Your task to perform on an android device: Open battery settings Image 0: 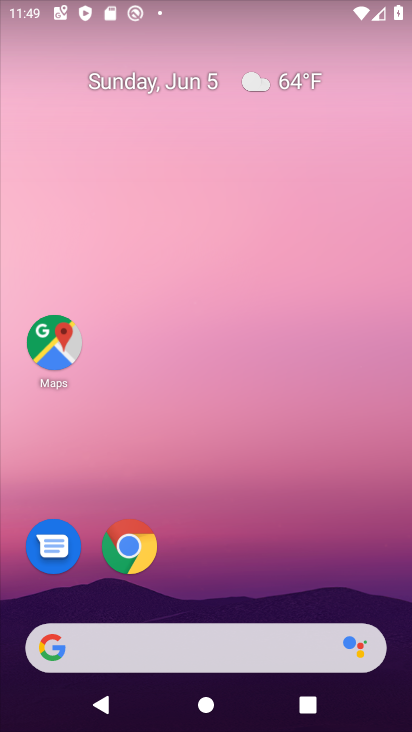
Step 0: drag from (237, 585) to (244, 216)
Your task to perform on an android device: Open battery settings Image 1: 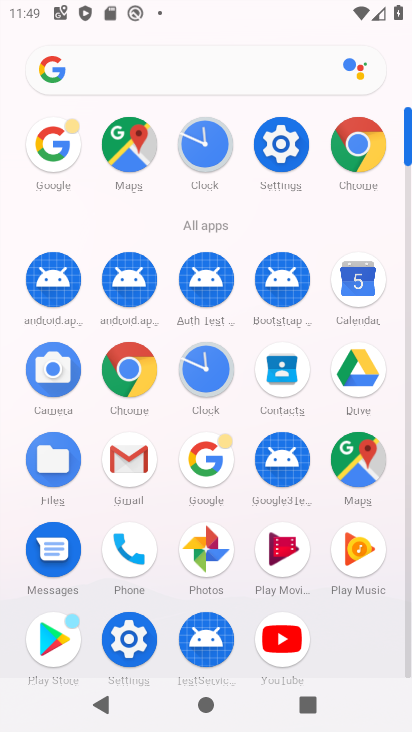
Step 1: click (272, 131)
Your task to perform on an android device: Open battery settings Image 2: 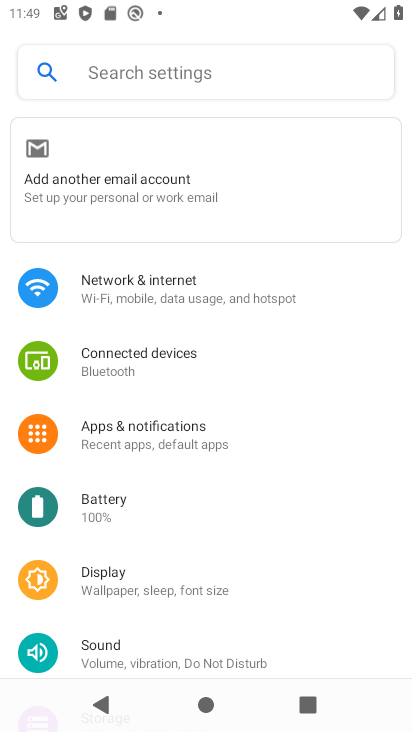
Step 2: click (129, 371)
Your task to perform on an android device: Open battery settings Image 3: 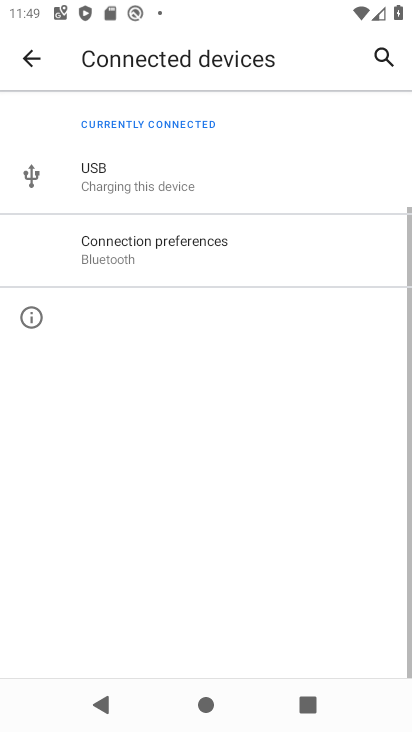
Step 3: click (43, 57)
Your task to perform on an android device: Open battery settings Image 4: 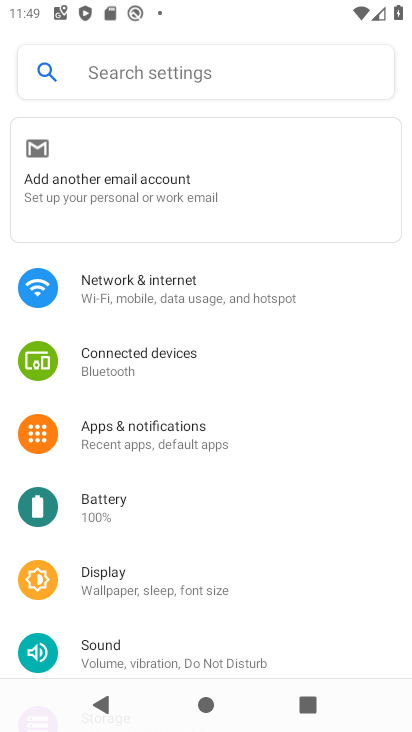
Step 4: drag from (114, 375) to (143, 263)
Your task to perform on an android device: Open battery settings Image 5: 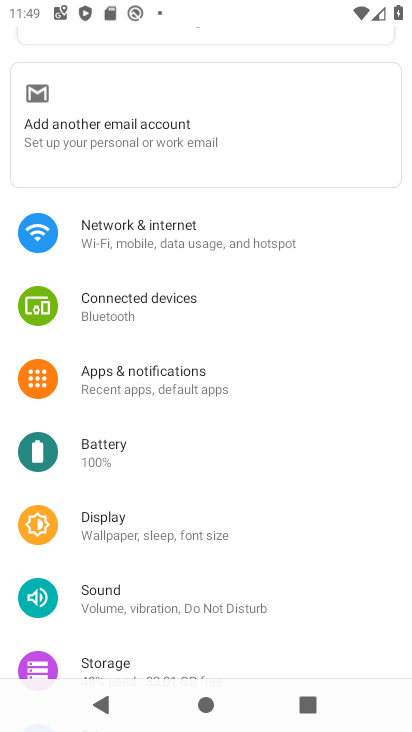
Step 5: click (73, 446)
Your task to perform on an android device: Open battery settings Image 6: 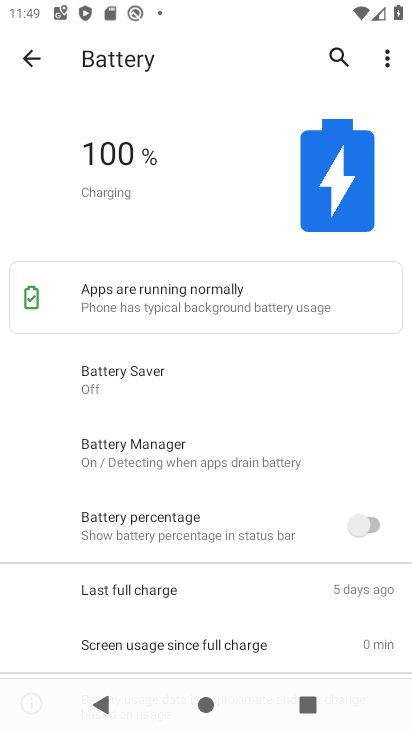
Step 6: task complete